Your task to perform on an android device: turn pop-ups on in chrome Image 0: 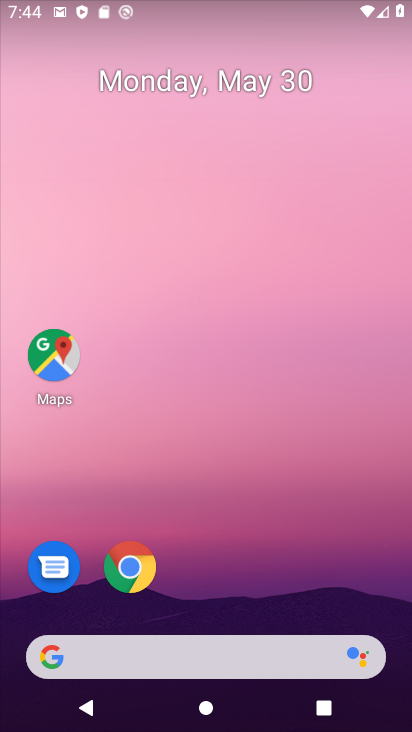
Step 0: click (126, 581)
Your task to perform on an android device: turn pop-ups on in chrome Image 1: 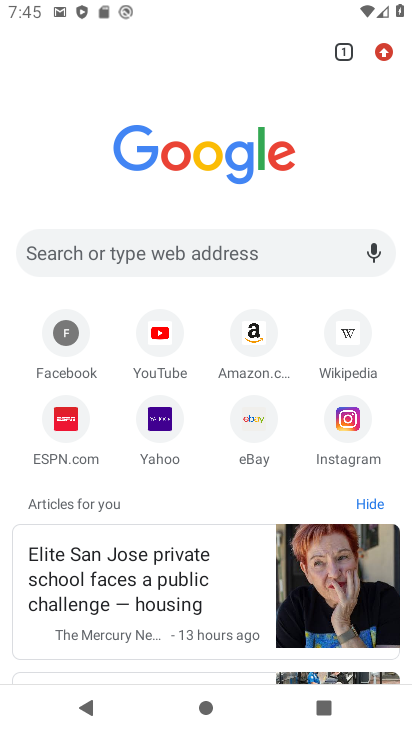
Step 1: task complete